Your task to perform on an android device: remove spam from my inbox in the gmail app Image 0: 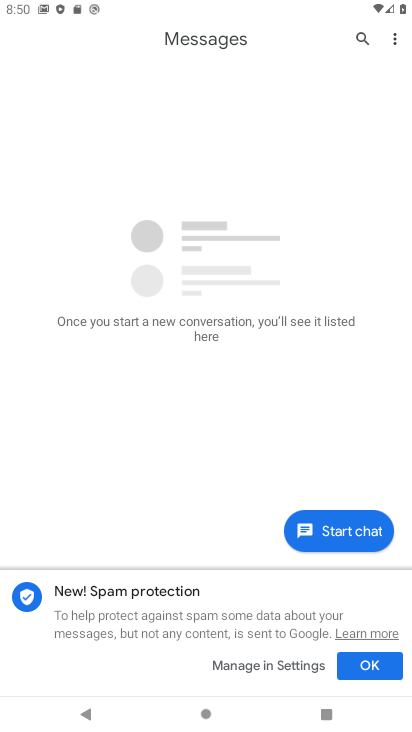
Step 0: press home button
Your task to perform on an android device: remove spam from my inbox in the gmail app Image 1: 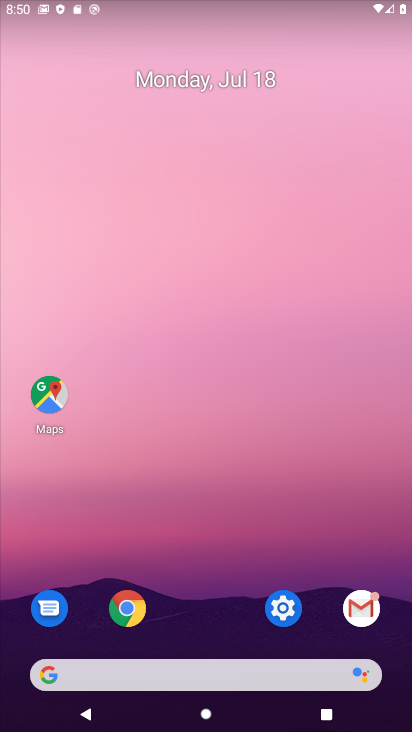
Step 1: click (352, 595)
Your task to perform on an android device: remove spam from my inbox in the gmail app Image 2: 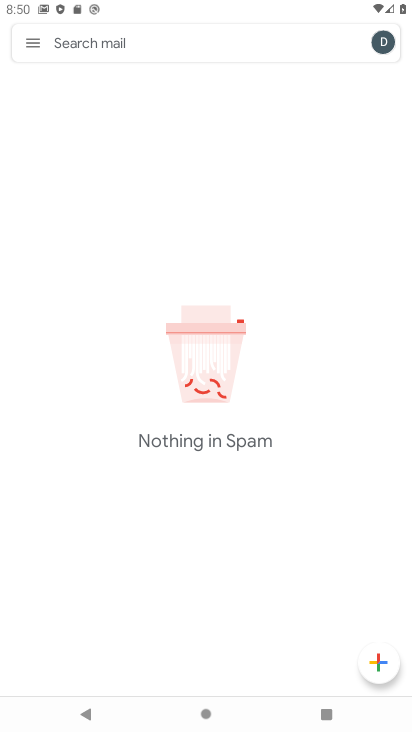
Step 2: click (35, 32)
Your task to perform on an android device: remove spam from my inbox in the gmail app Image 3: 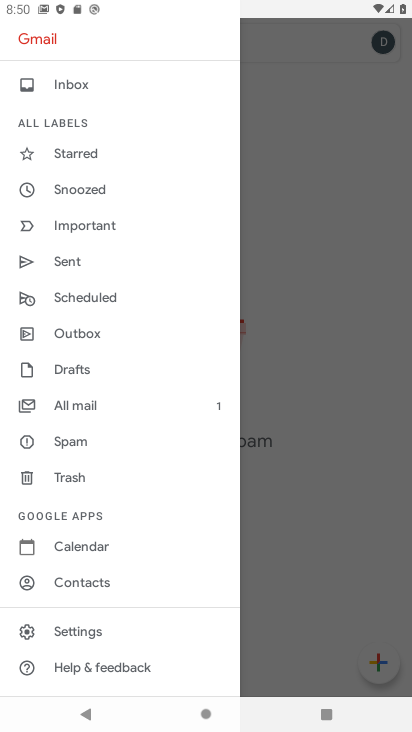
Step 3: click (99, 447)
Your task to perform on an android device: remove spam from my inbox in the gmail app Image 4: 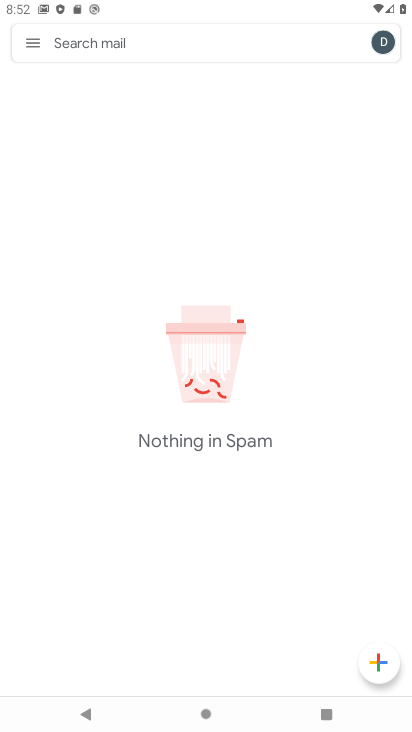
Step 4: task complete